Your task to perform on an android device: change your default location settings in chrome Image 0: 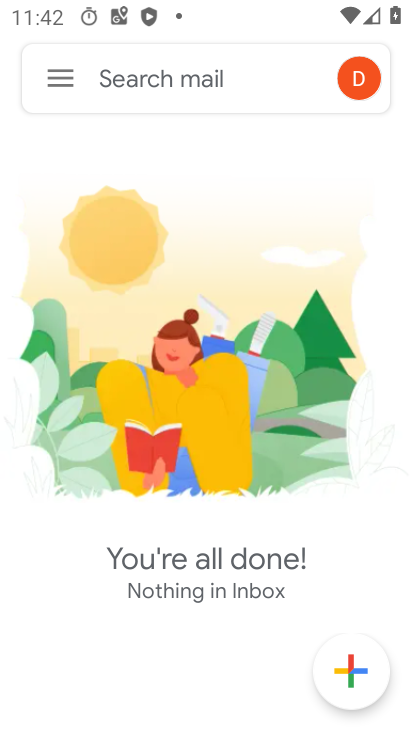
Step 0: press home button
Your task to perform on an android device: change your default location settings in chrome Image 1: 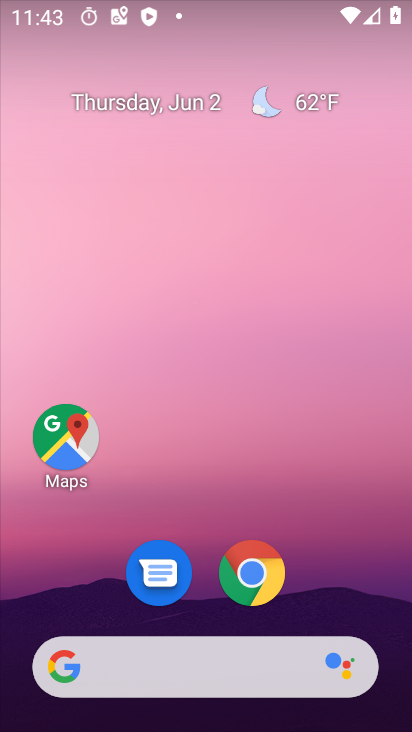
Step 1: drag from (220, 680) to (228, 63)
Your task to perform on an android device: change your default location settings in chrome Image 2: 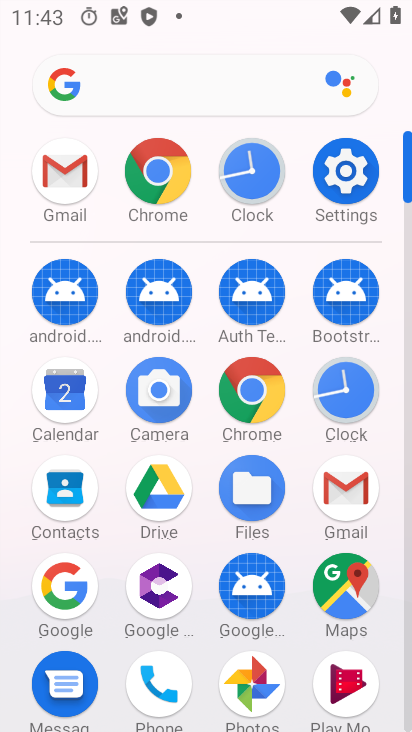
Step 2: click (272, 401)
Your task to perform on an android device: change your default location settings in chrome Image 3: 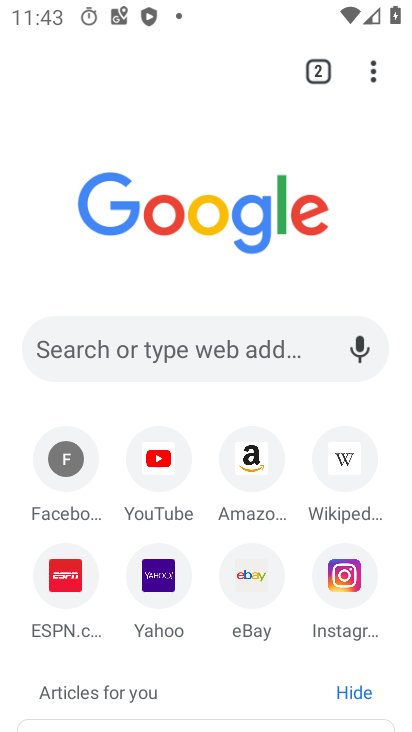
Step 3: drag from (374, 66) to (171, 610)
Your task to perform on an android device: change your default location settings in chrome Image 4: 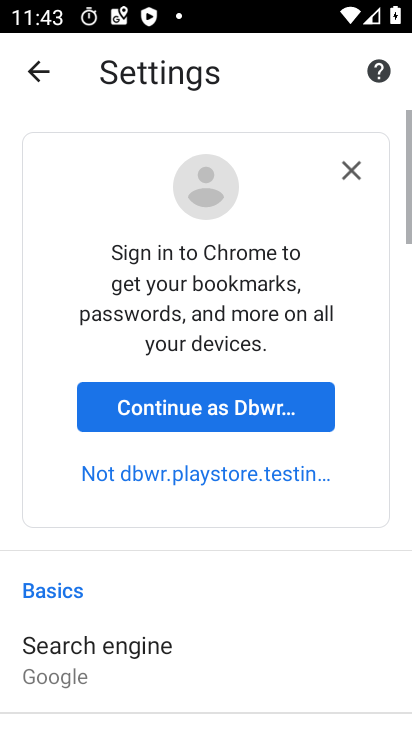
Step 4: drag from (195, 696) to (188, 99)
Your task to perform on an android device: change your default location settings in chrome Image 5: 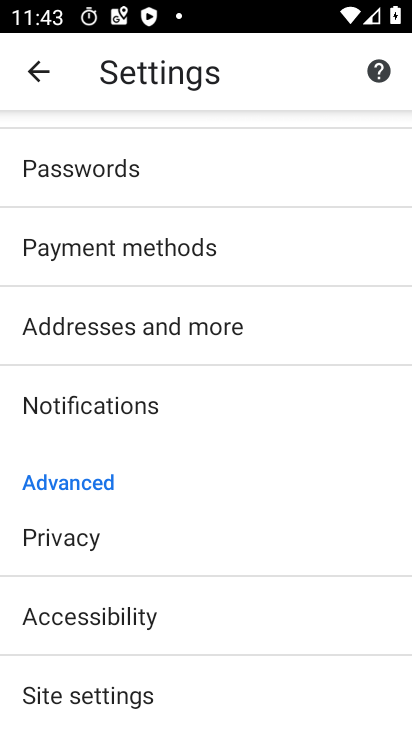
Step 5: drag from (208, 634) to (217, 155)
Your task to perform on an android device: change your default location settings in chrome Image 6: 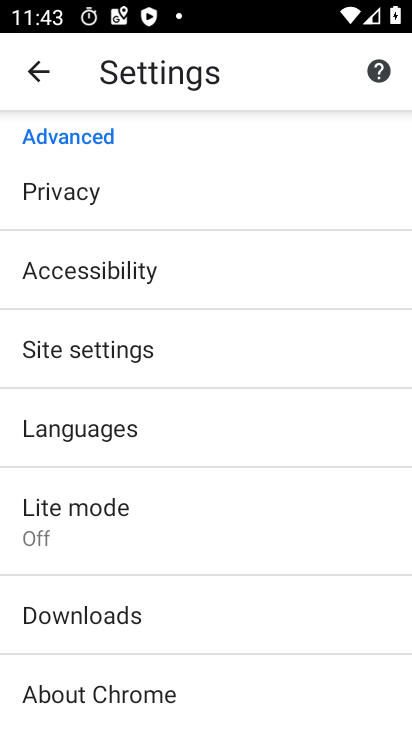
Step 6: click (142, 428)
Your task to perform on an android device: change your default location settings in chrome Image 7: 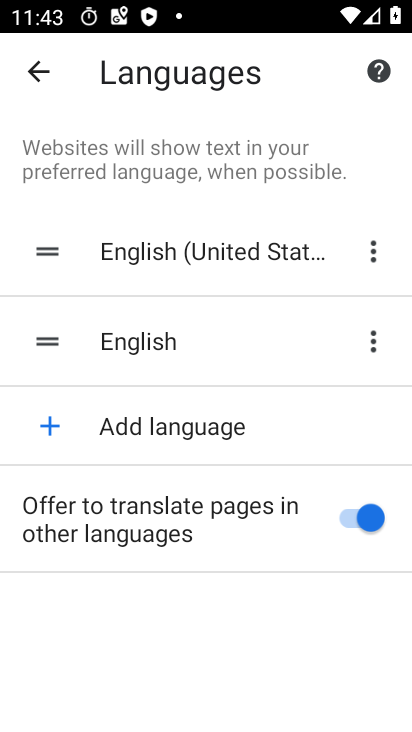
Step 7: click (363, 516)
Your task to perform on an android device: change your default location settings in chrome Image 8: 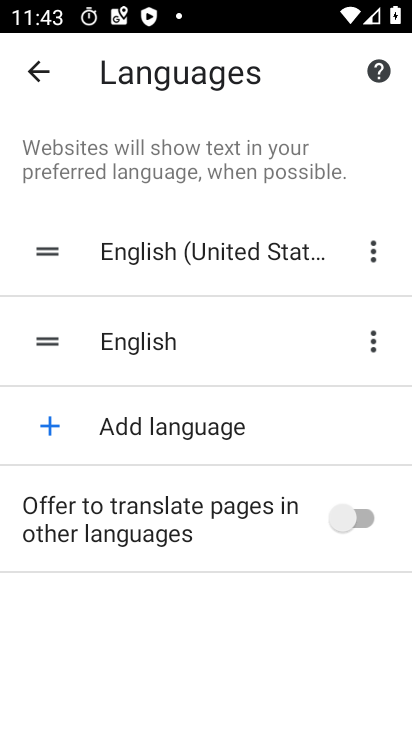
Step 8: task complete